Your task to perform on an android device: check the backup settings in the google photos Image 0: 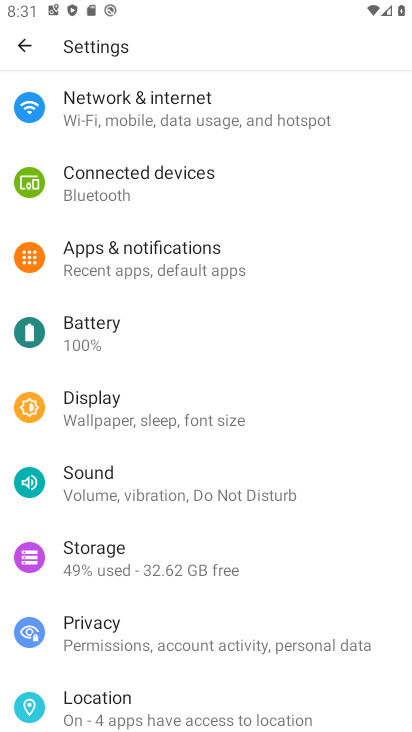
Step 0: press home button
Your task to perform on an android device: check the backup settings in the google photos Image 1: 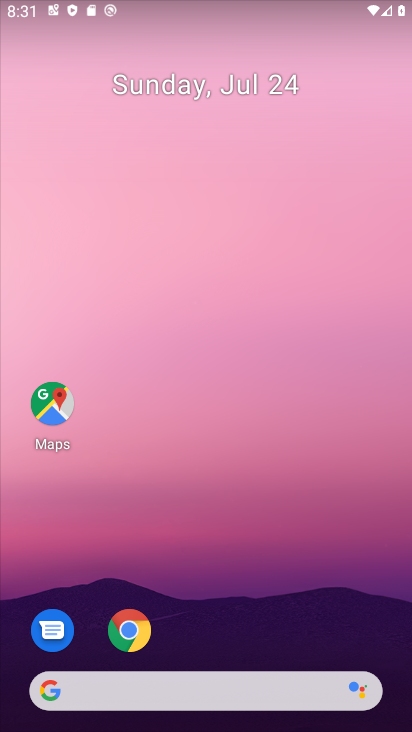
Step 1: drag from (223, 507) to (208, 157)
Your task to perform on an android device: check the backup settings in the google photos Image 2: 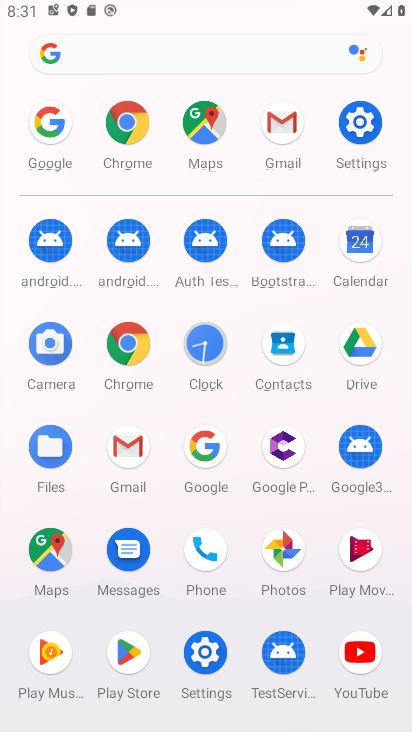
Step 2: click (281, 532)
Your task to perform on an android device: check the backup settings in the google photos Image 3: 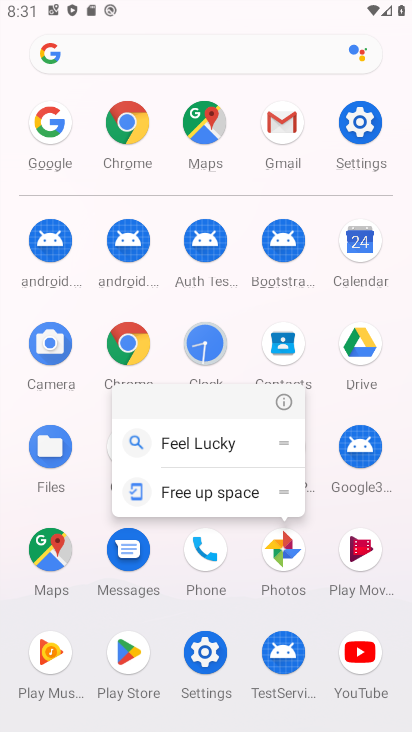
Step 3: click (281, 539)
Your task to perform on an android device: check the backup settings in the google photos Image 4: 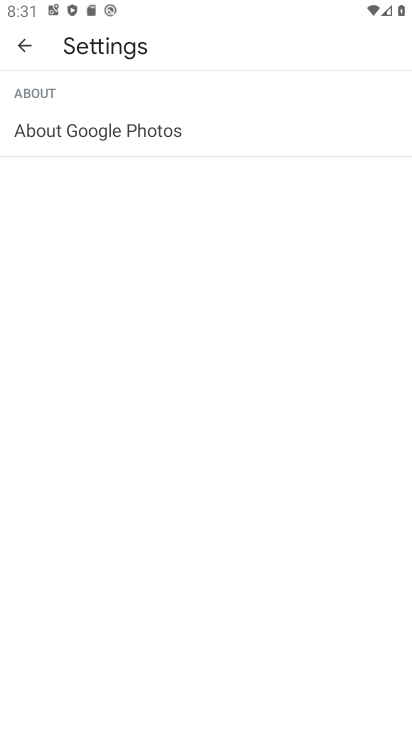
Step 4: click (23, 48)
Your task to perform on an android device: check the backup settings in the google photos Image 5: 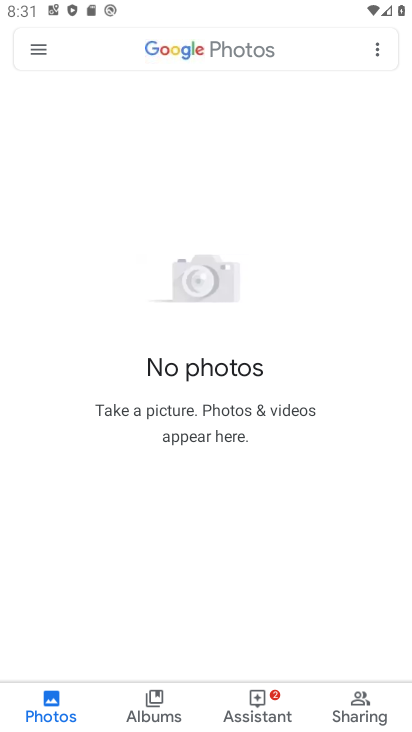
Step 5: click (27, 49)
Your task to perform on an android device: check the backup settings in the google photos Image 6: 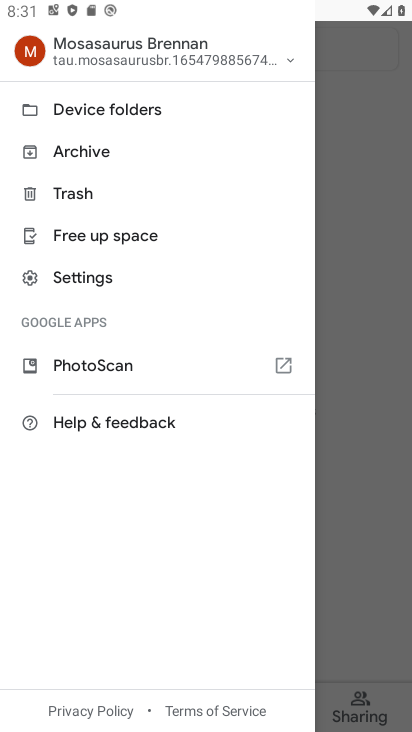
Step 6: click (73, 288)
Your task to perform on an android device: check the backup settings in the google photos Image 7: 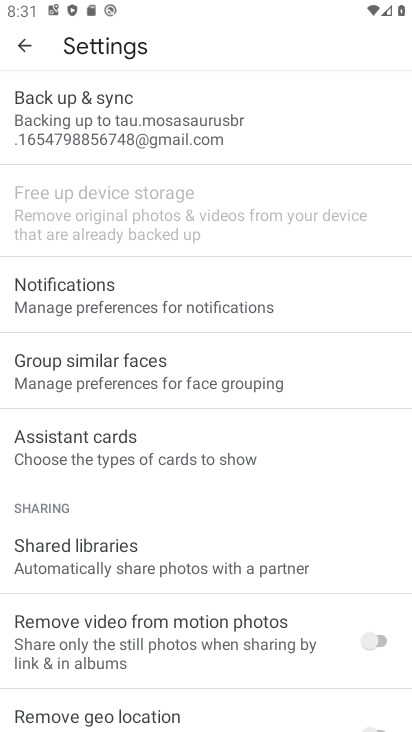
Step 7: click (141, 97)
Your task to perform on an android device: check the backup settings in the google photos Image 8: 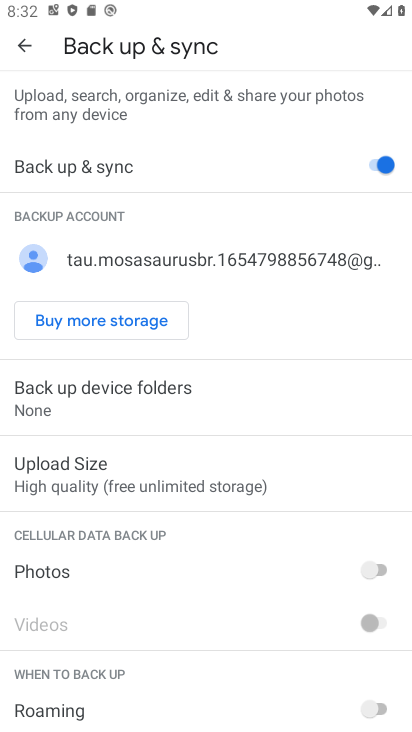
Step 8: task complete